Your task to perform on an android device: toggle show notifications on the lock screen Image 0: 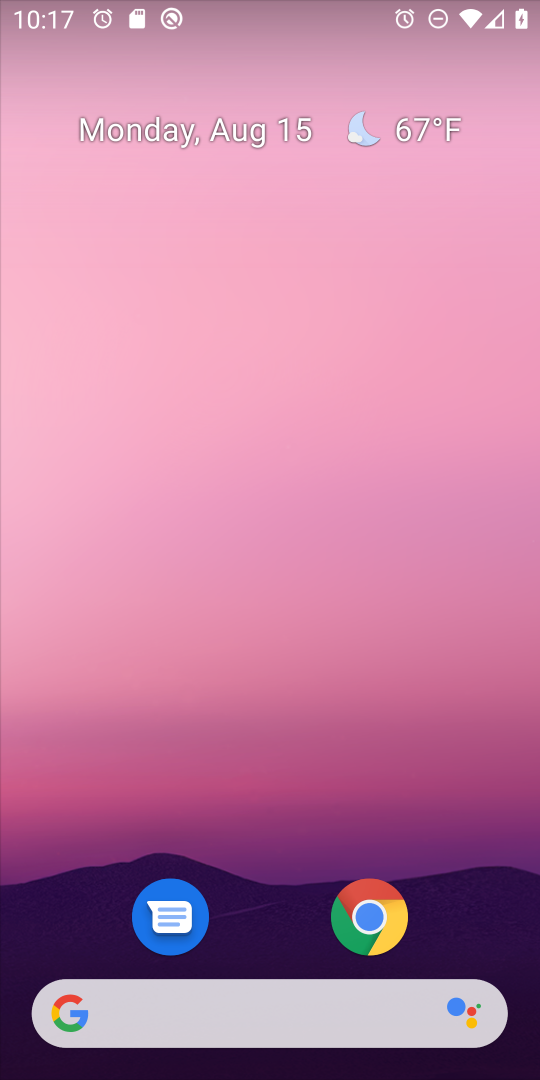
Step 0: drag from (260, 580) to (280, 3)
Your task to perform on an android device: toggle show notifications on the lock screen Image 1: 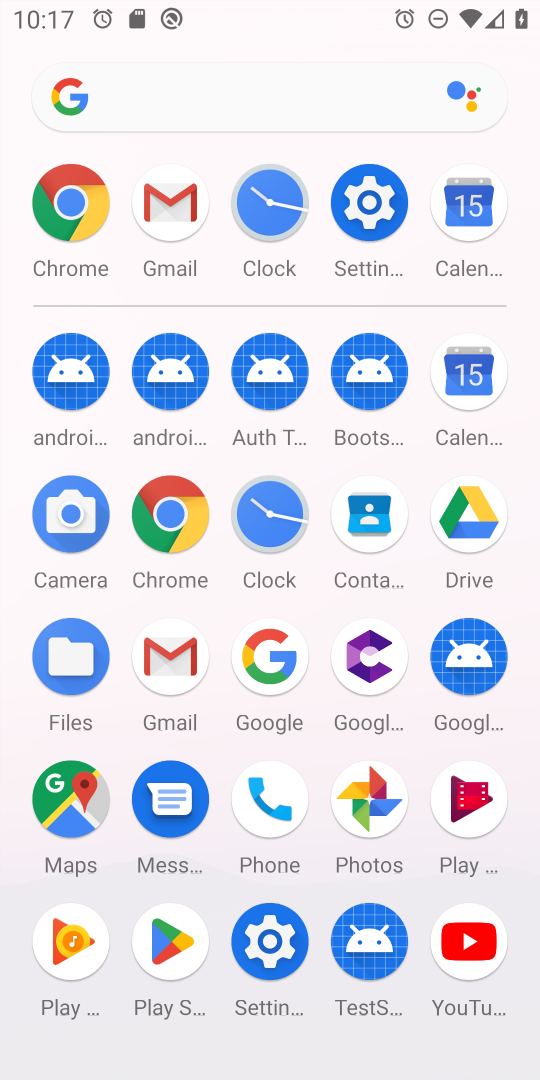
Step 1: click (375, 199)
Your task to perform on an android device: toggle show notifications on the lock screen Image 2: 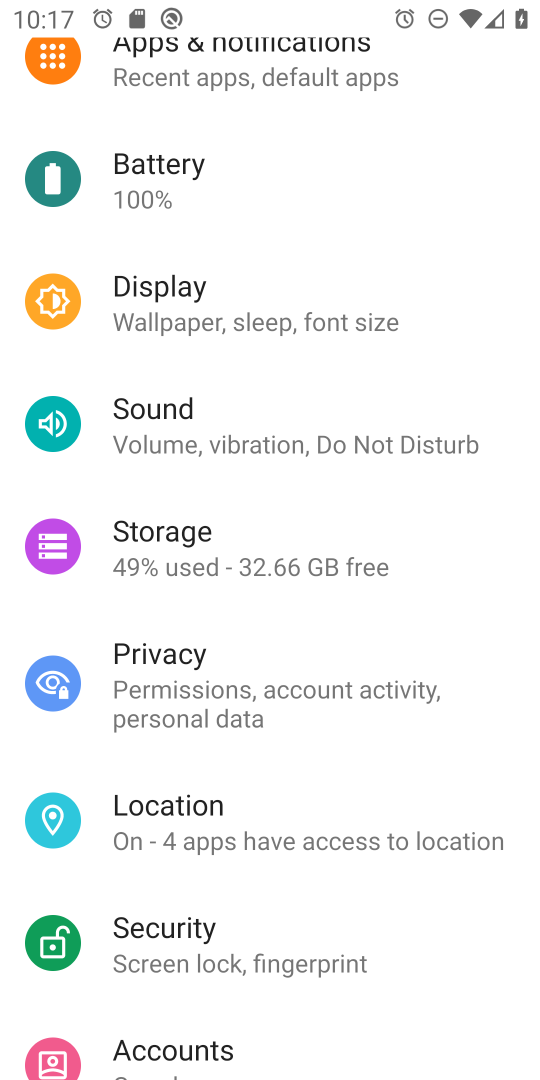
Step 2: drag from (348, 293) to (377, 665)
Your task to perform on an android device: toggle show notifications on the lock screen Image 3: 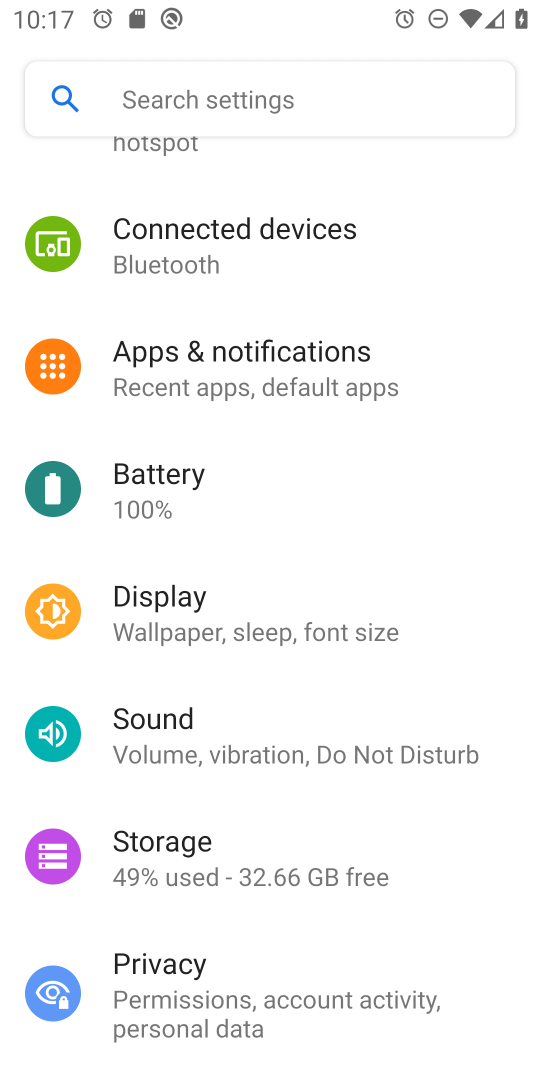
Step 3: click (313, 363)
Your task to perform on an android device: toggle show notifications on the lock screen Image 4: 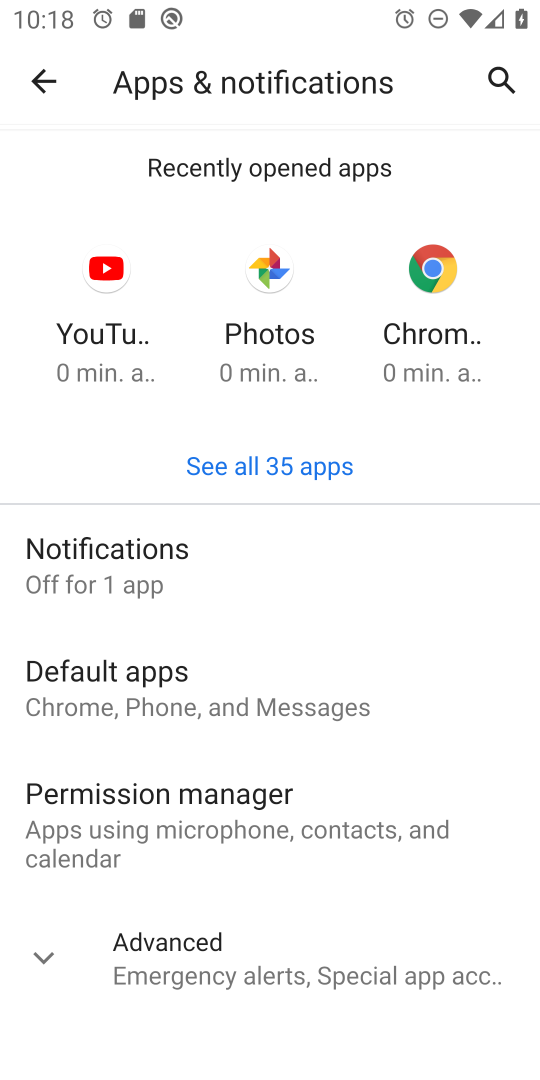
Step 4: click (142, 540)
Your task to perform on an android device: toggle show notifications on the lock screen Image 5: 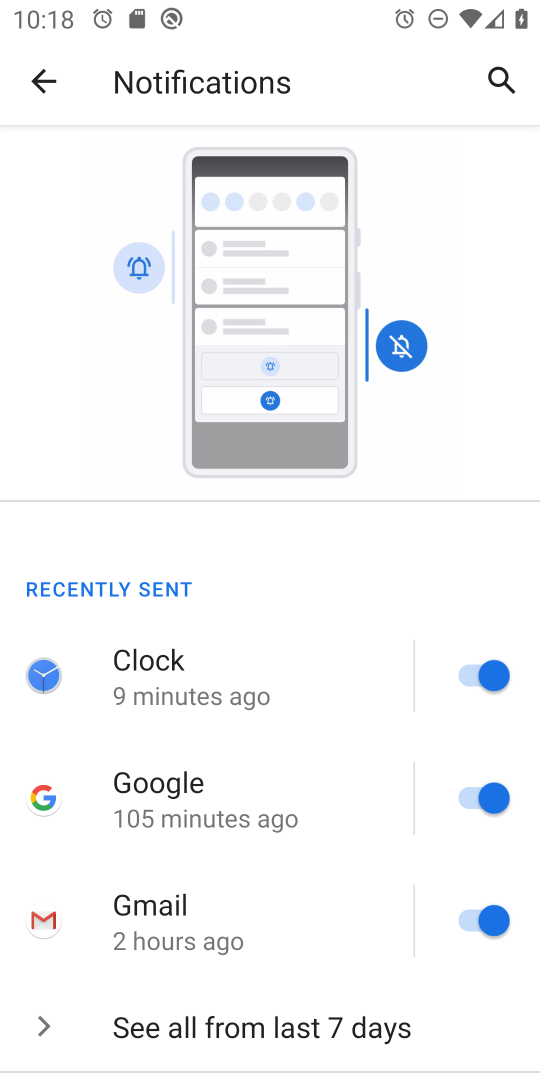
Step 5: drag from (256, 869) to (309, 71)
Your task to perform on an android device: toggle show notifications on the lock screen Image 6: 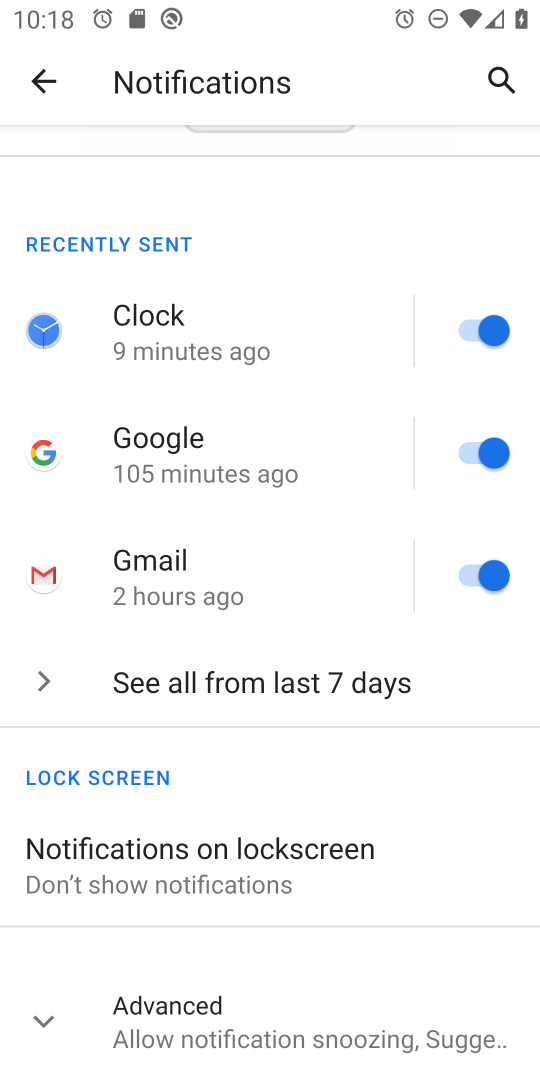
Step 6: click (283, 858)
Your task to perform on an android device: toggle show notifications on the lock screen Image 7: 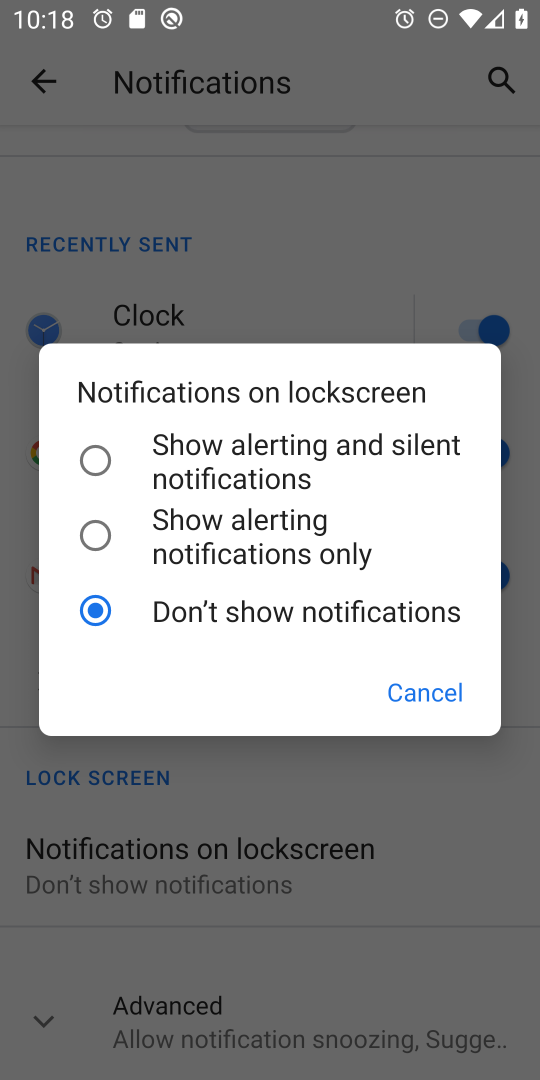
Step 7: click (100, 455)
Your task to perform on an android device: toggle show notifications on the lock screen Image 8: 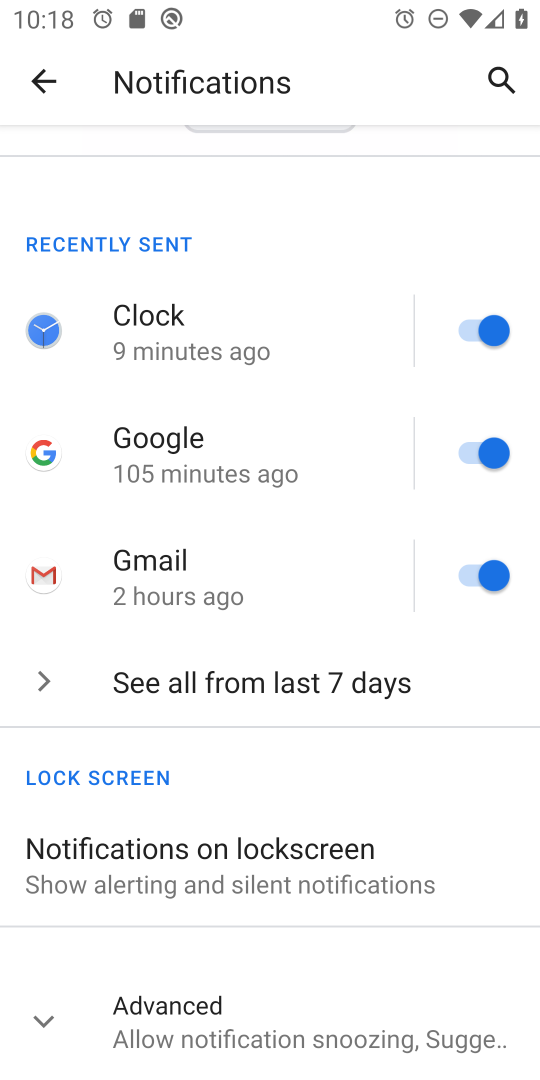
Step 8: task complete